Your task to perform on an android device: Do I have any events this weekend? Image 0: 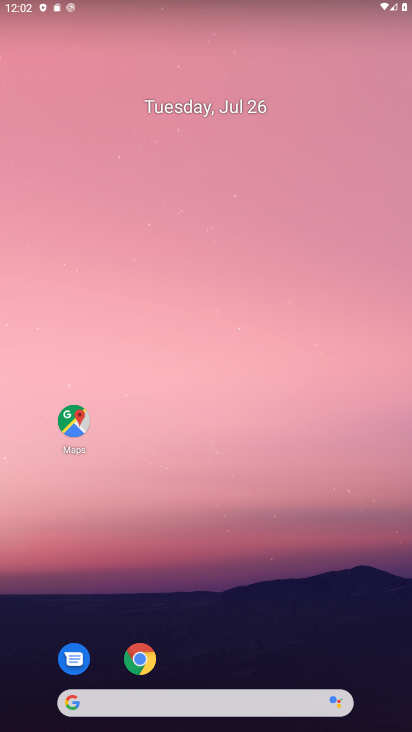
Step 0: press home button
Your task to perform on an android device: Do I have any events this weekend? Image 1: 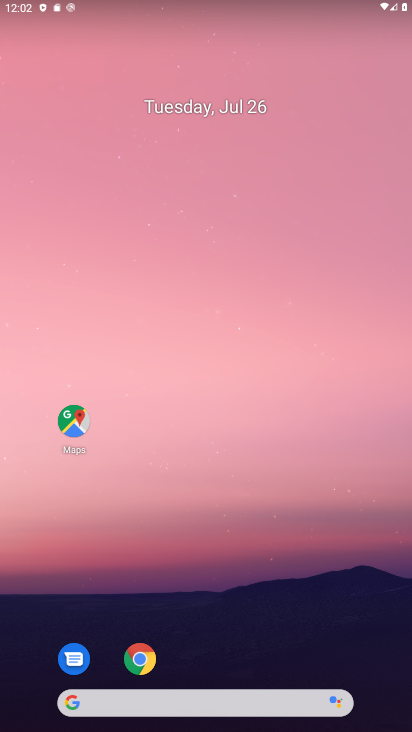
Step 1: drag from (310, 602) to (132, 102)
Your task to perform on an android device: Do I have any events this weekend? Image 2: 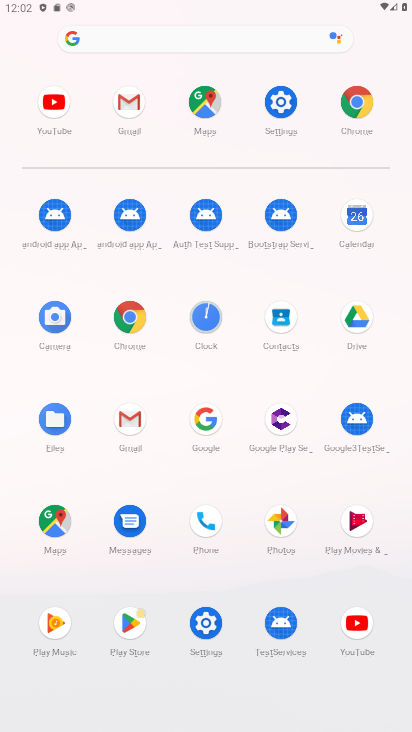
Step 2: click (357, 230)
Your task to perform on an android device: Do I have any events this weekend? Image 3: 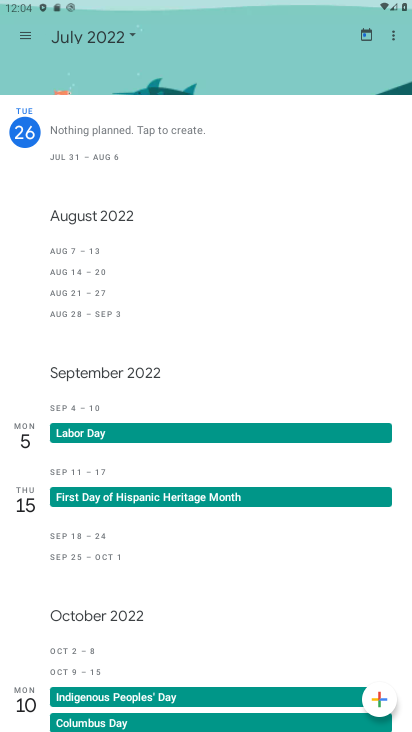
Step 3: task complete